Your task to perform on an android device: Open the map Image 0: 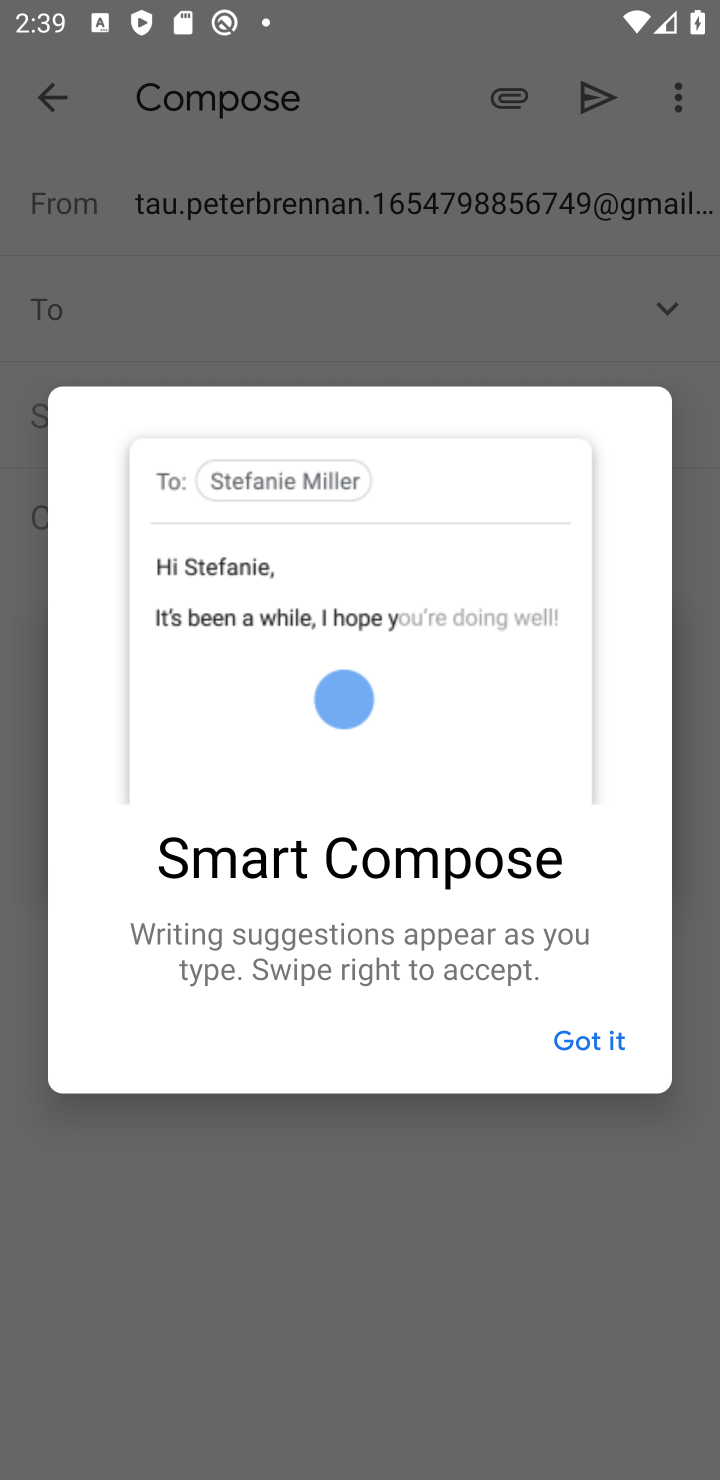
Step 0: press home button
Your task to perform on an android device: Open the map Image 1: 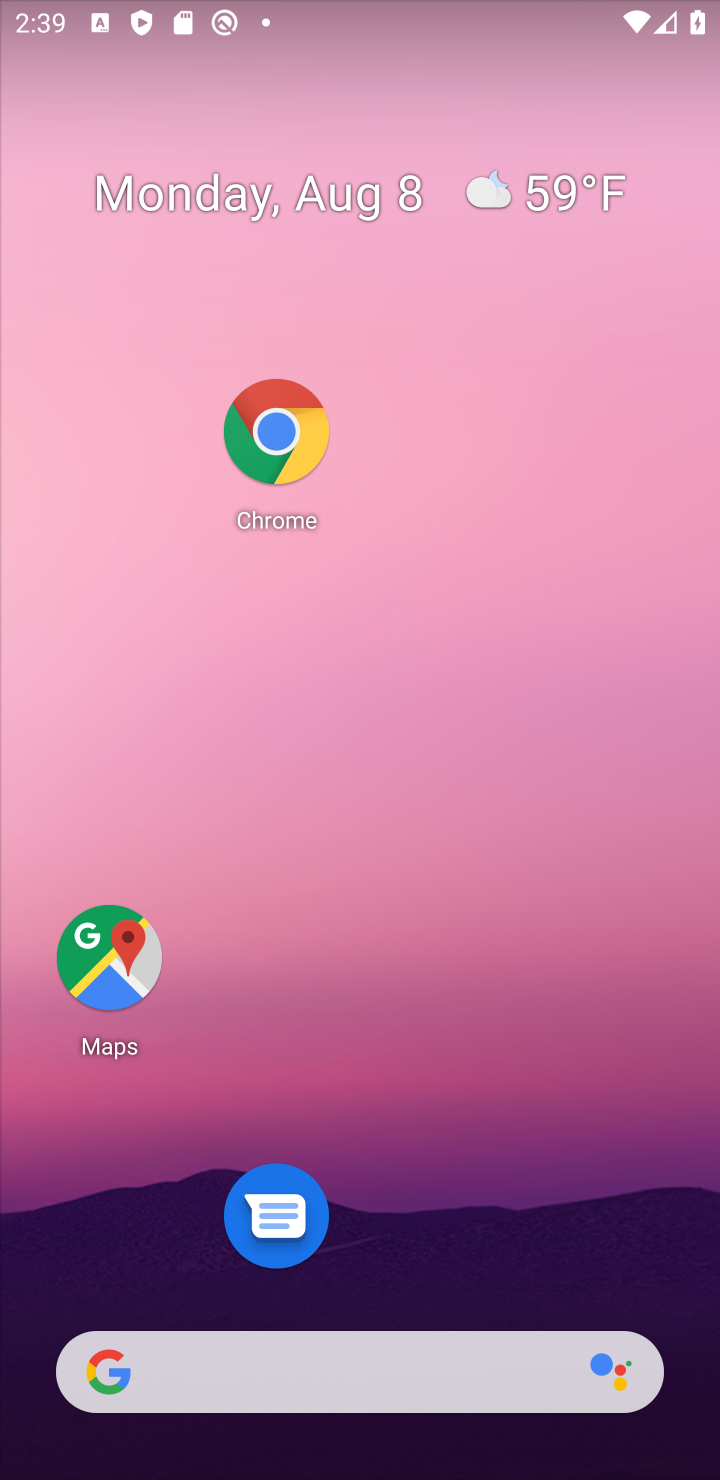
Step 1: drag from (541, 1275) to (451, 217)
Your task to perform on an android device: Open the map Image 2: 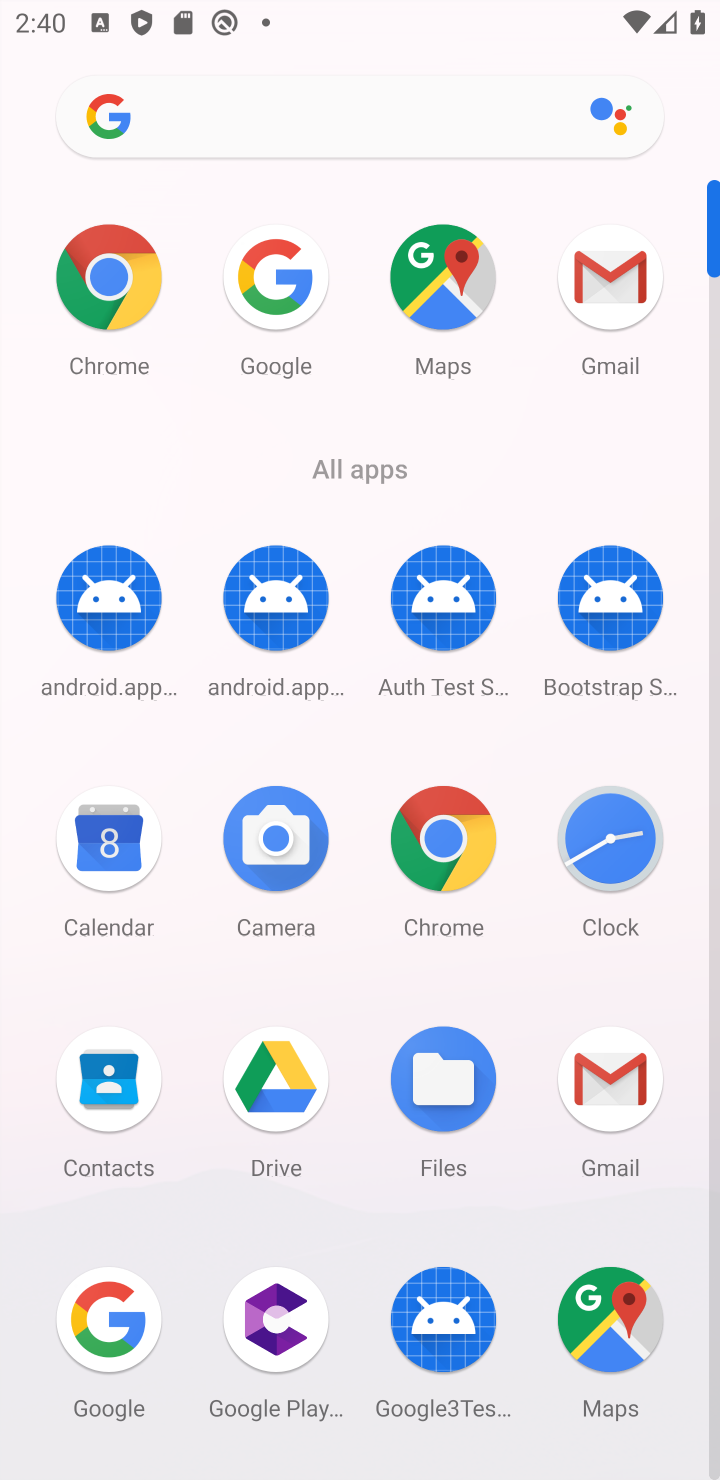
Step 2: click (626, 1317)
Your task to perform on an android device: Open the map Image 3: 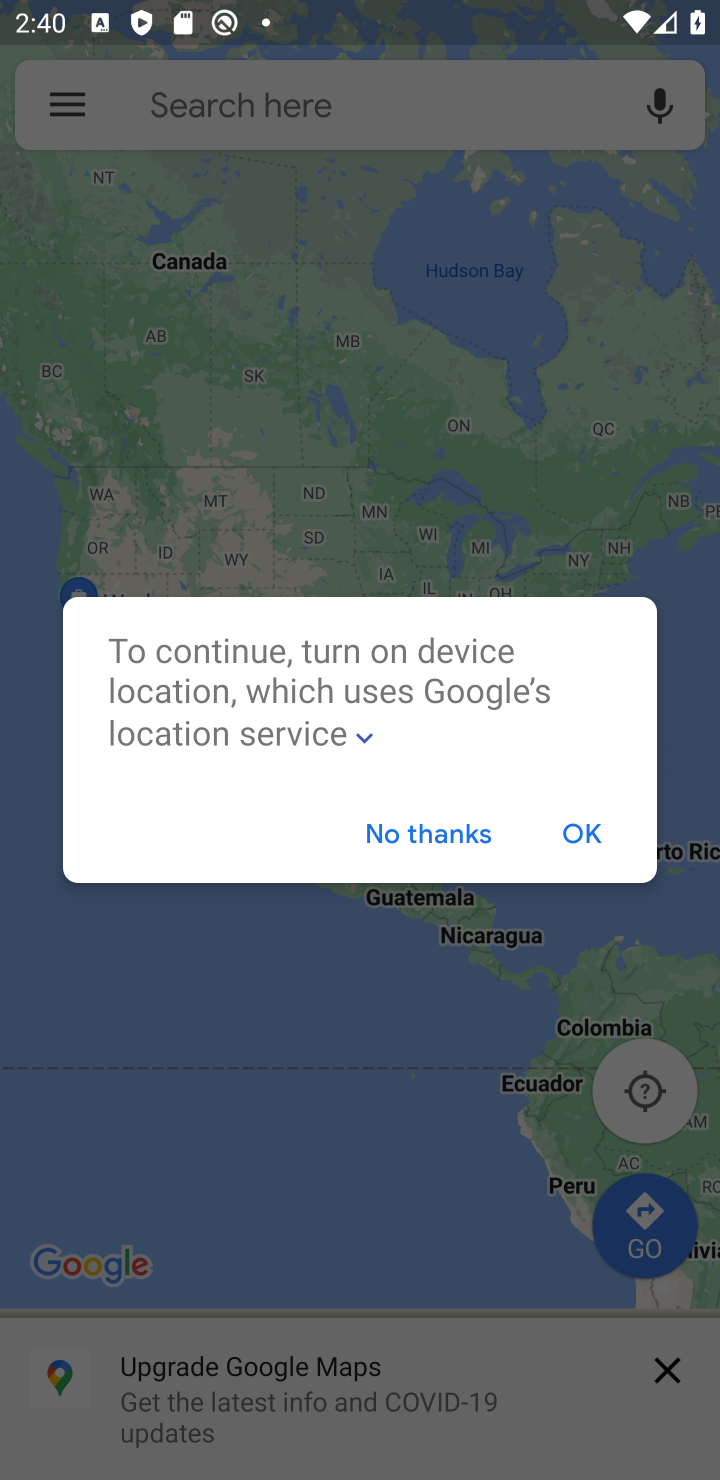
Step 3: task complete